Your task to perform on an android device: Go to accessibility settings Image 0: 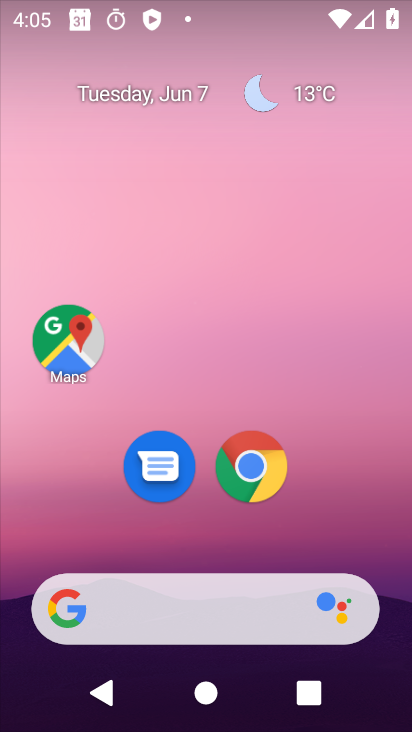
Step 0: drag from (400, 571) to (305, 253)
Your task to perform on an android device: Go to accessibility settings Image 1: 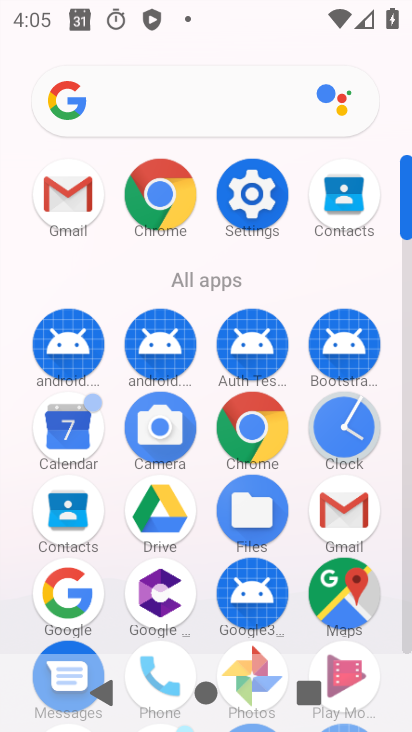
Step 1: click (262, 198)
Your task to perform on an android device: Go to accessibility settings Image 2: 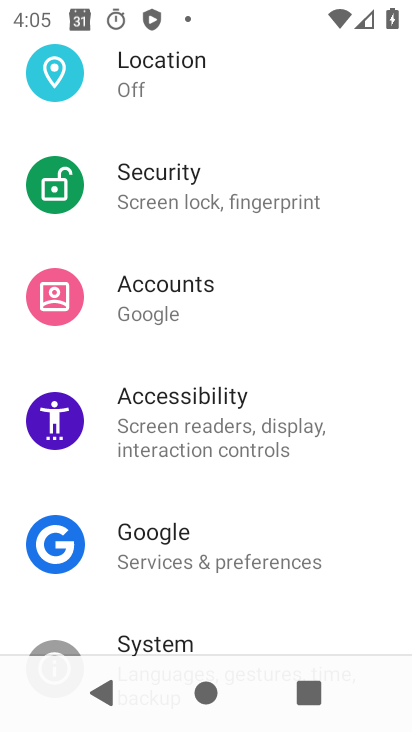
Step 2: click (294, 419)
Your task to perform on an android device: Go to accessibility settings Image 3: 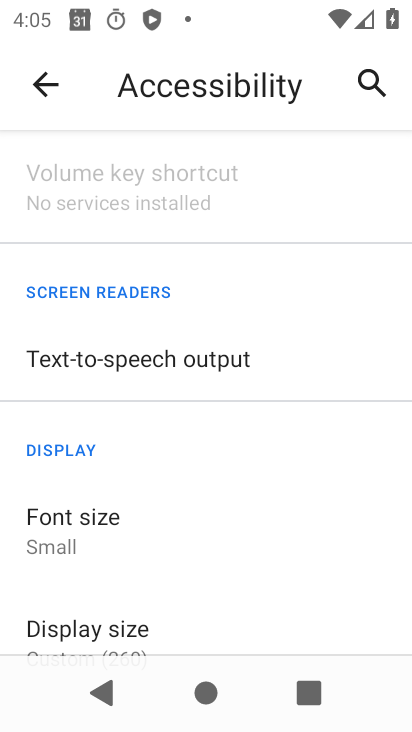
Step 3: task complete